Your task to perform on an android device: Go to CNN.com Image 0: 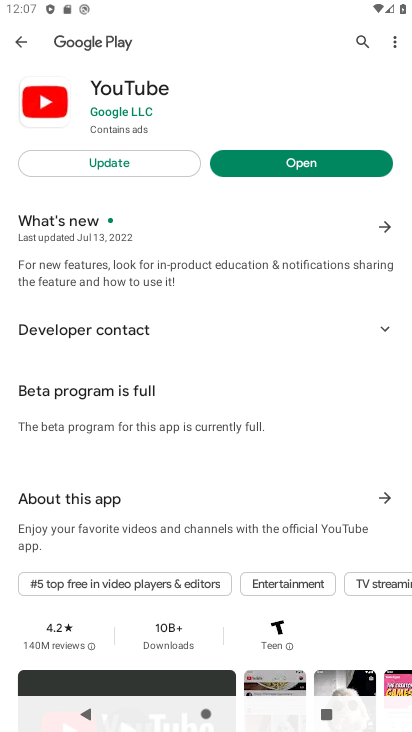
Step 0: press home button
Your task to perform on an android device: Go to CNN.com Image 1: 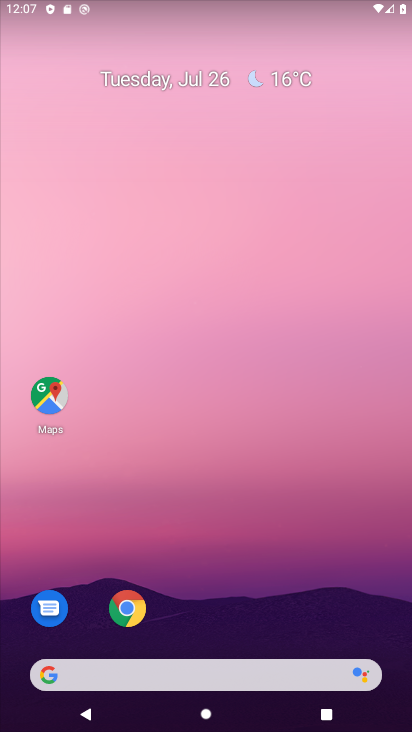
Step 1: drag from (286, 623) to (258, 0)
Your task to perform on an android device: Go to CNN.com Image 2: 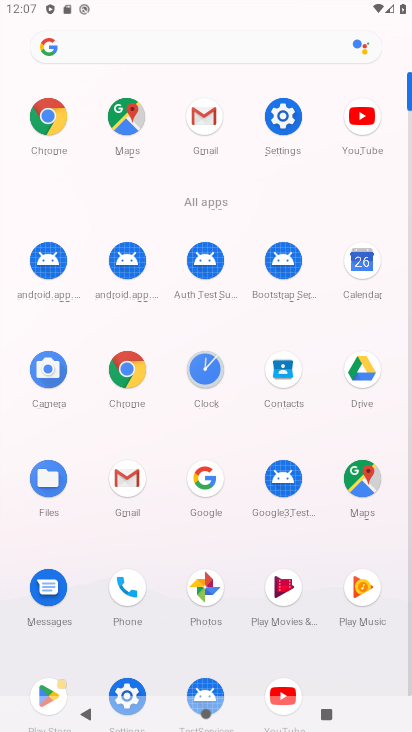
Step 2: click (81, 49)
Your task to perform on an android device: Go to CNN.com Image 3: 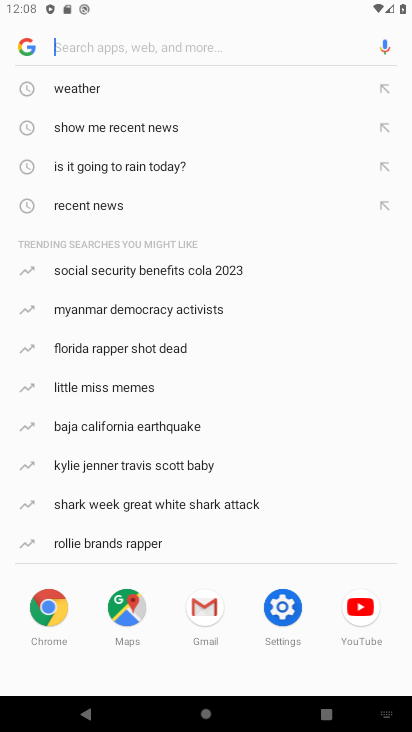
Step 3: type "cnn.com"
Your task to perform on an android device: Go to CNN.com Image 4: 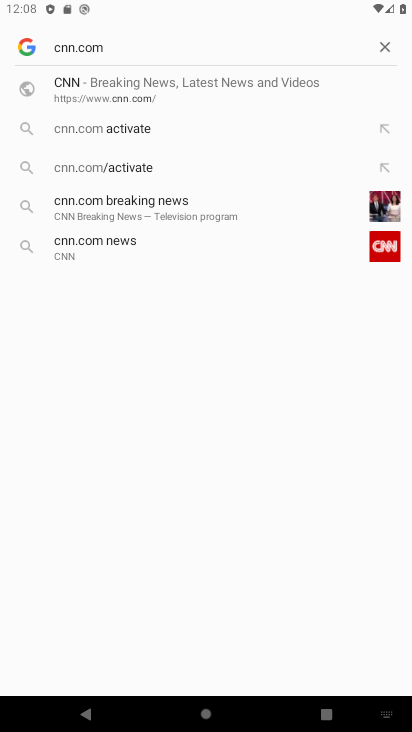
Step 4: click (258, 98)
Your task to perform on an android device: Go to CNN.com Image 5: 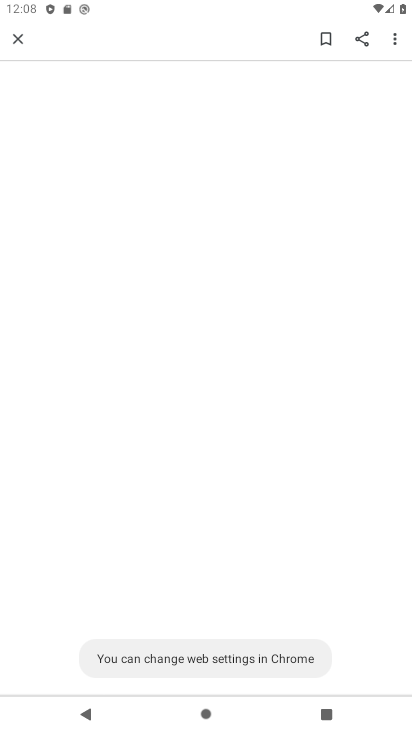
Step 5: task complete